Your task to perform on an android device: see creations saved in the google photos Image 0: 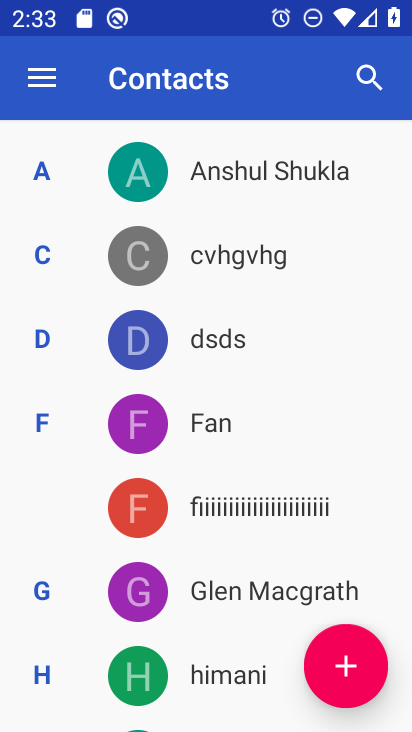
Step 0: press home button
Your task to perform on an android device: see creations saved in the google photos Image 1: 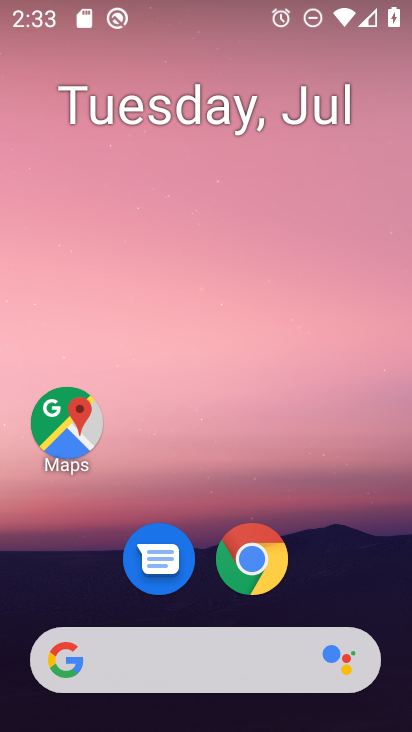
Step 1: drag from (365, 604) to (374, 191)
Your task to perform on an android device: see creations saved in the google photos Image 2: 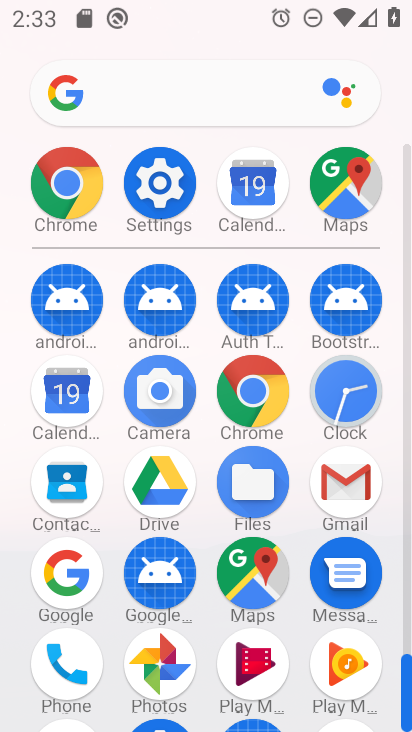
Step 2: click (164, 667)
Your task to perform on an android device: see creations saved in the google photos Image 3: 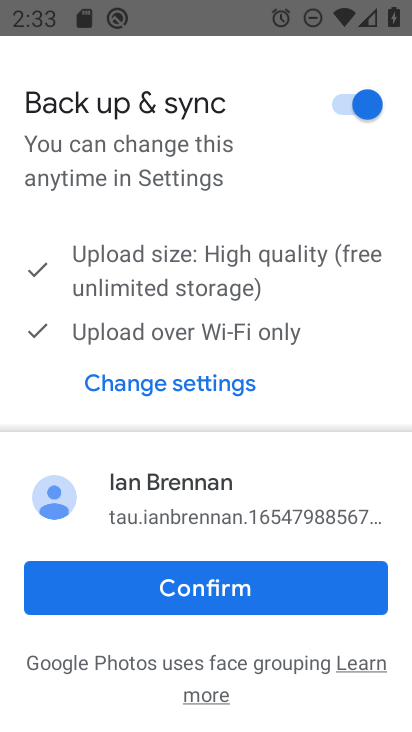
Step 3: click (238, 595)
Your task to perform on an android device: see creations saved in the google photos Image 4: 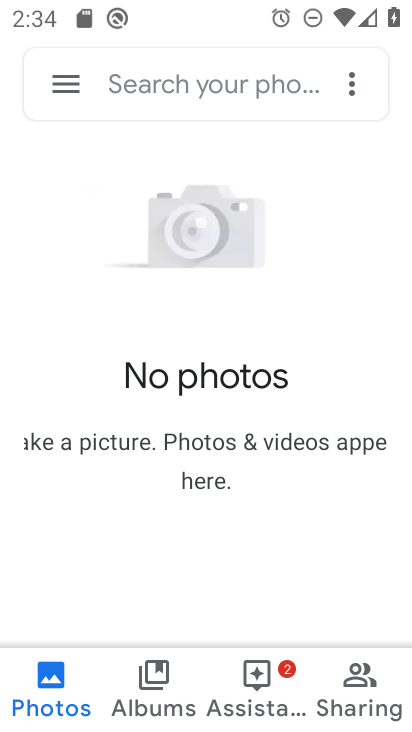
Step 4: click (217, 86)
Your task to perform on an android device: see creations saved in the google photos Image 5: 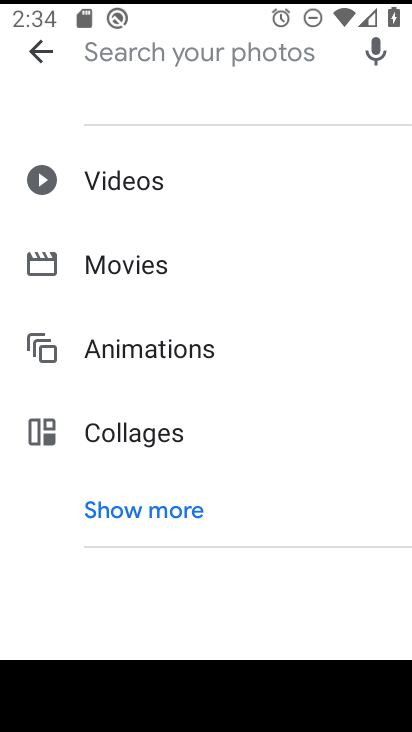
Step 5: click (177, 510)
Your task to perform on an android device: see creations saved in the google photos Image 6: 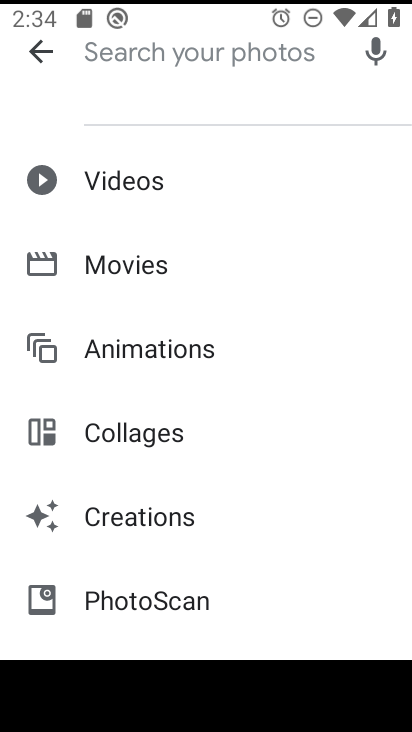
Step 6: drag from (189, 540) to (230, 311)
Your task to perform on an android device: see creations saved in the google photos Image 7: 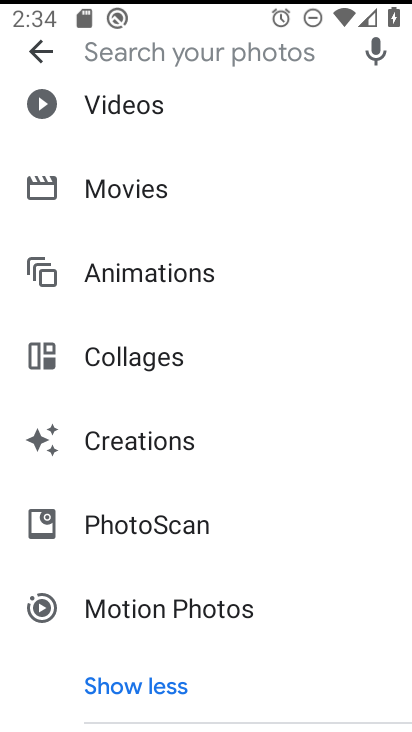
Step 7: click (183, 431)
Your task to perform on an android device: see creations saved in the google photos Image 8: 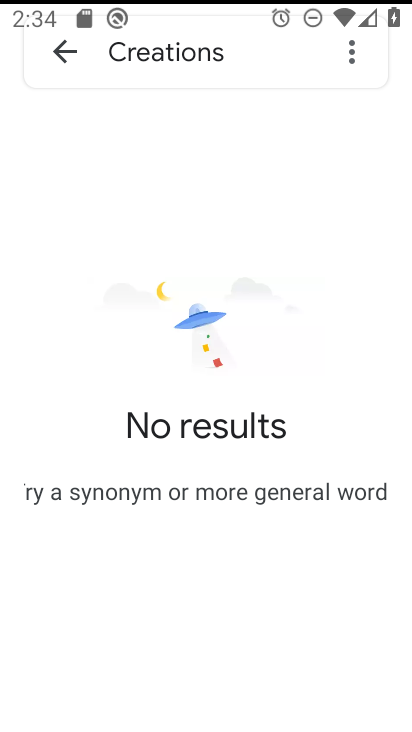
Step 8: task complete